Your task to perform on an android device: turn on the 12-hour format for clock Image 0: 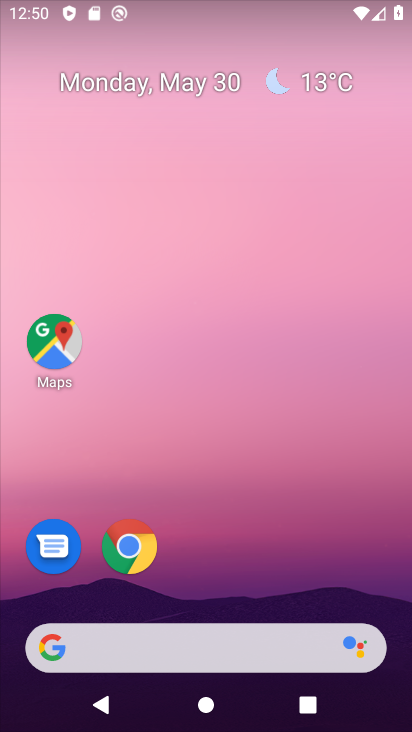
Step 0: press home button
Your task to perform on an android device: turn on the 12-hour format for clock Image 1: 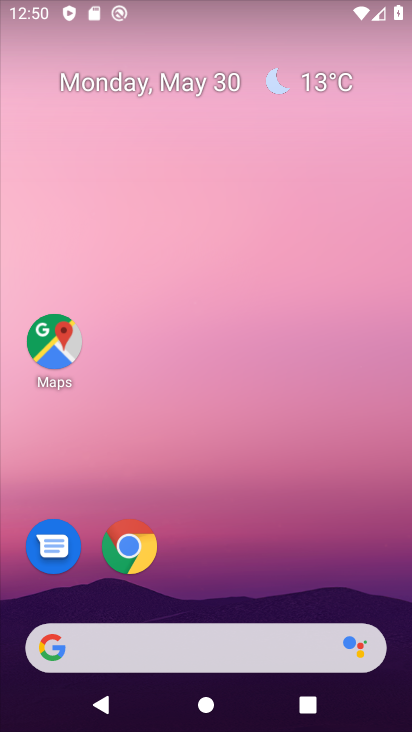
Step 1: drag from (321, 601) to (332, 126)
Your task to perform on an android device: turn on the 12-hour format for clock Image 2: 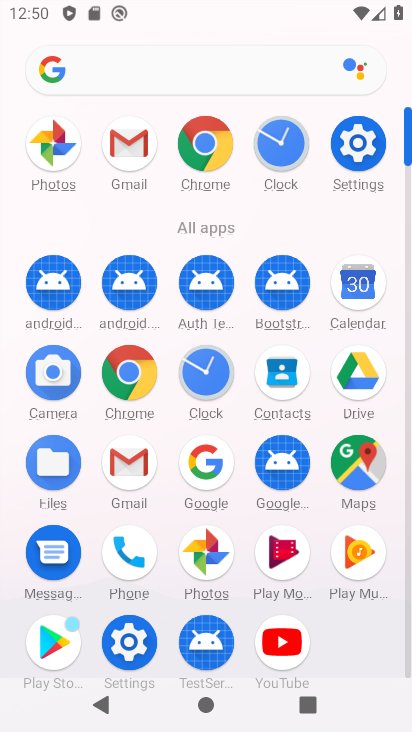
Step 2: click (353, 151)
Your task to perform on an android device: turn on the 12-hour format for clock Image 3: 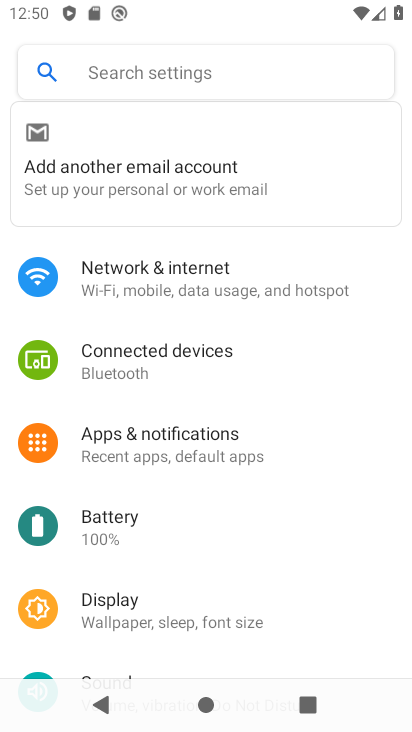
Step 3: drag from (257, 557) to (263, 187)
Your task to perform on an android device: turn on the 12-hour format for clock Image 4: 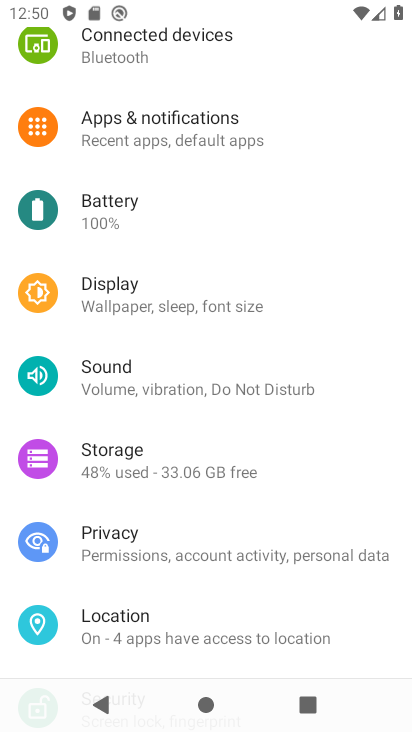
Step 4: drag from (307, 492) to (328, 183)
Your task to perform on an android device: turn on the 12-hour format for clock Image 5: 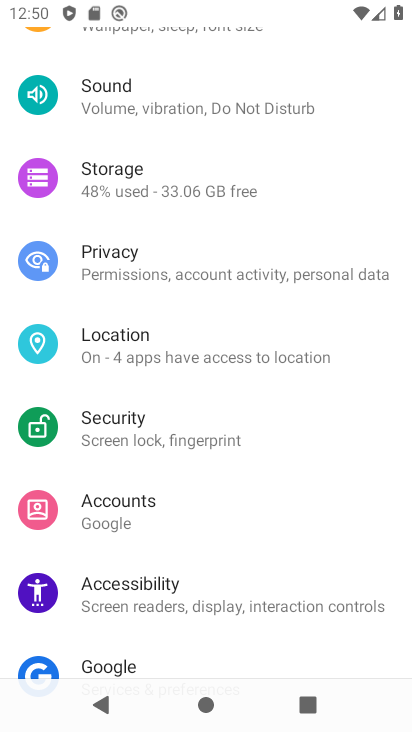
Step 5: drag from (230, 534) to (264, 194)
Your task to perform on an android device: turn on the 12-hour format for clock Image 6: 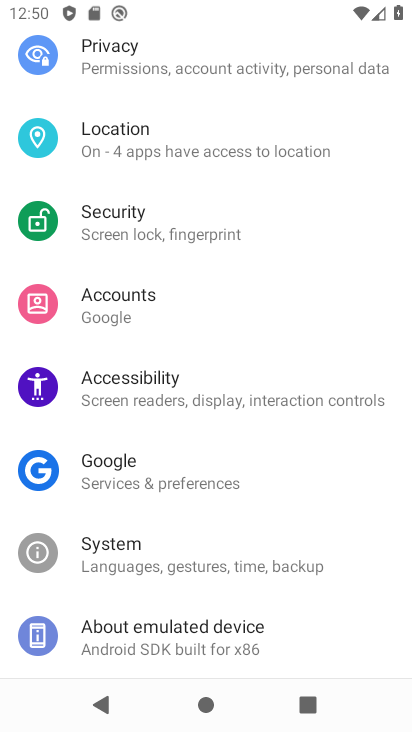
Step 6: click (133, 547)
Your task to perform on an android device: turn on the 12-hour format for clock Image 7: 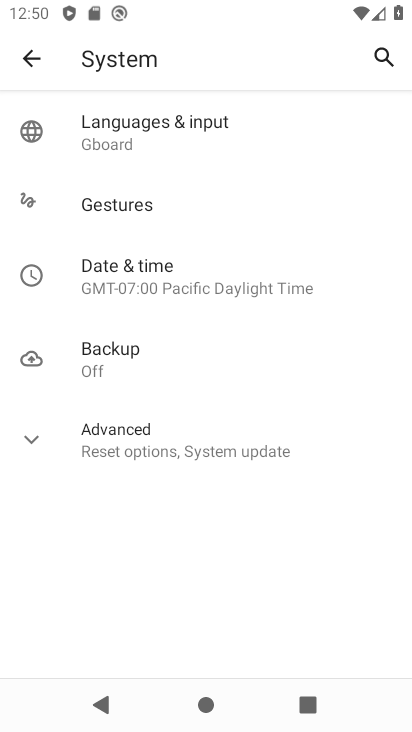
Step 7: click (116, 277)
Your task to perform on an android device: turn on the 12-hour format for clock Image 8: 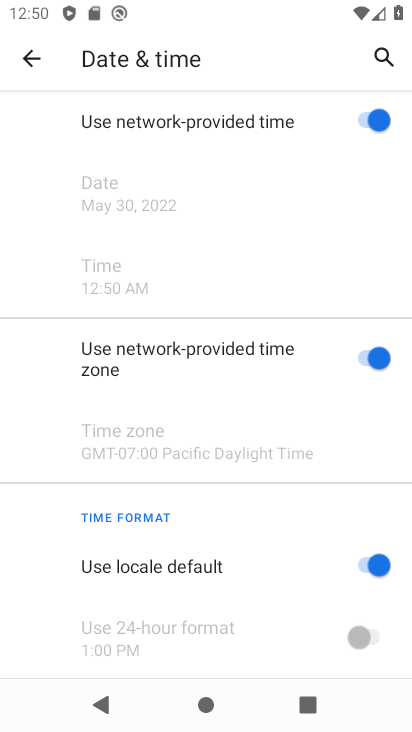
Step 8: click (369, 635)
Your task to perform on an android device: turn on the 12-hour format for clock Image 9: 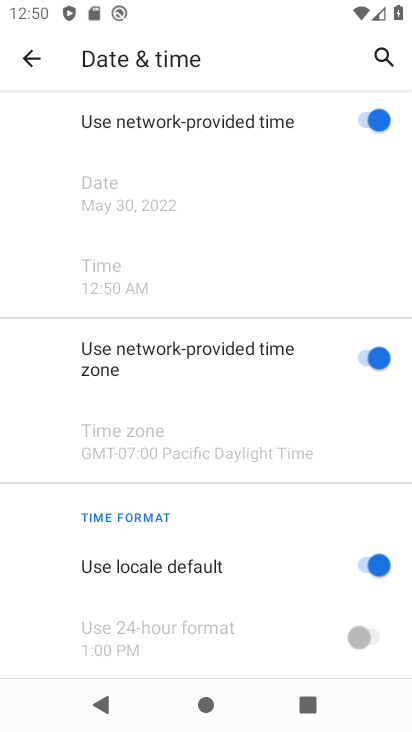
Step 9: click (380, 566)
Your task to perform on an android device: turn on the 12-hour format for clock Image 10: 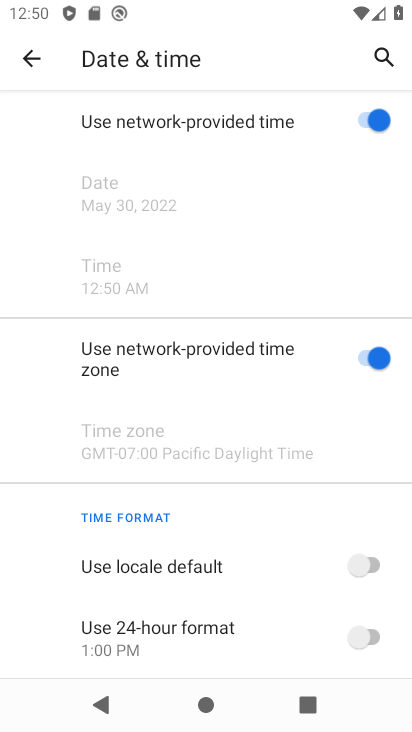
Step 10: click (369, 635)
Your task to perform on an android device: turn on the 12-hour format for clock Image 11: 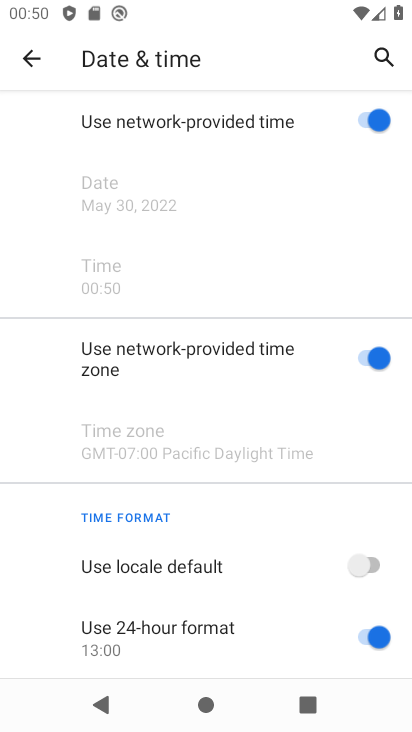
Step 11: click (385, 639)
Your task to perform on an android device: turn on the 12-hour format for clock Image 12: 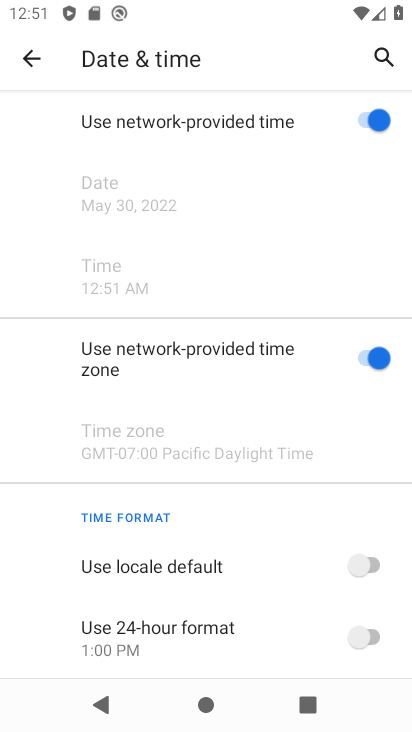
Step 12: task complete